Your task to perform on an android device: open app "Etsy: Buy & Sell Unique Items" Image 0: 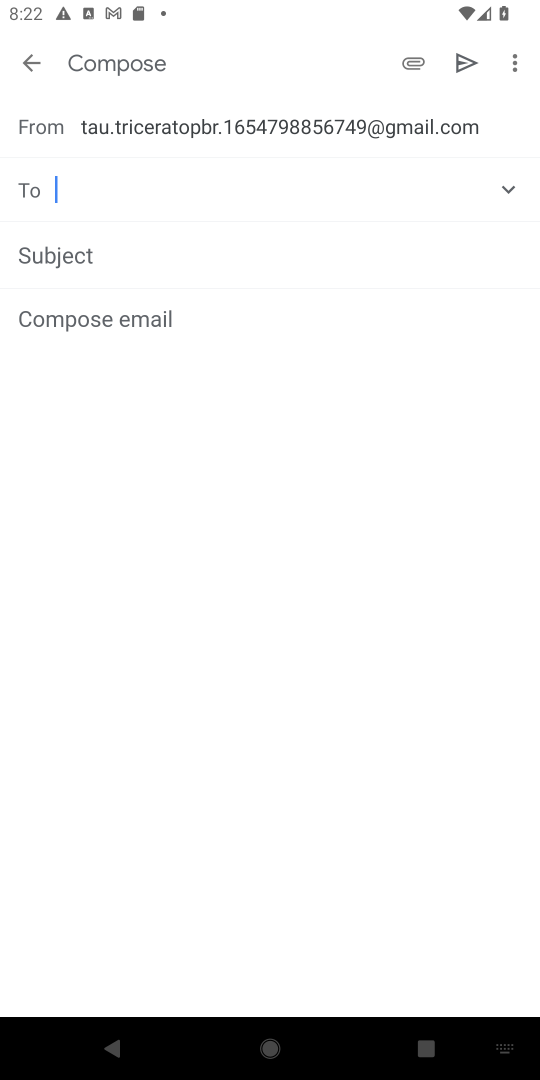
Step 0: press home button
Your task to perform on an android device: open app "Etsy: Buy & Sell Unique Items" Image 1: 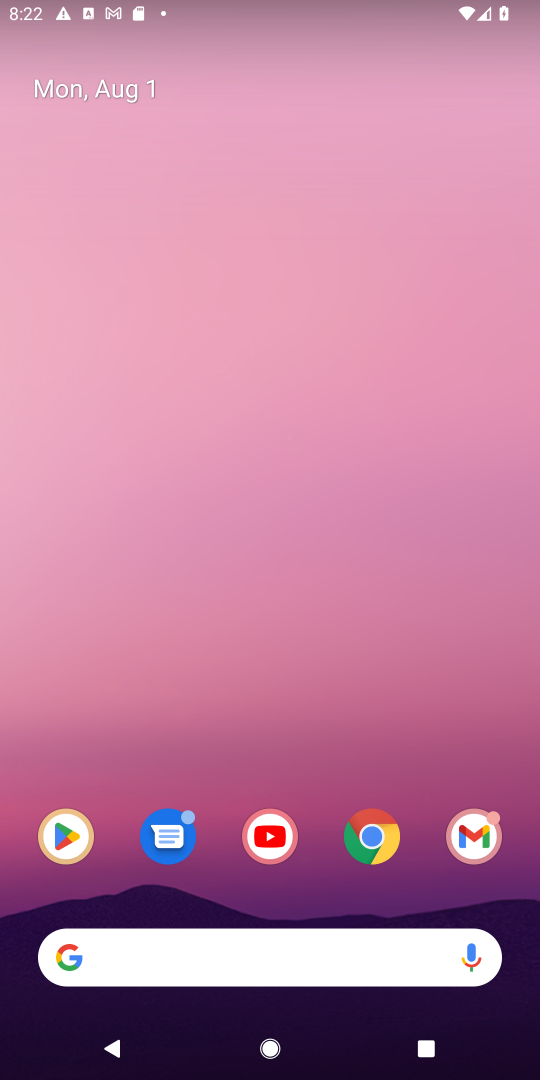
Step 1: click (58, 829)
Your task to perform on an android device: open app "Etsy: Buy & Sell Unique Items" Image 2: 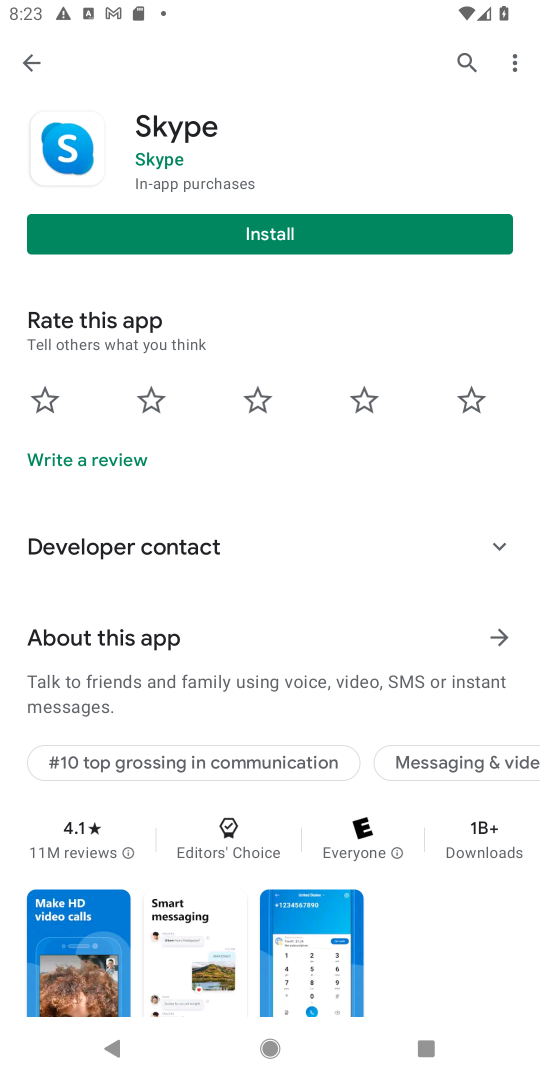
Step 2: click (461, 64)
Your task to perform on an android device: open app "Etsy: Buy & Sell Unique Items" Image 3: 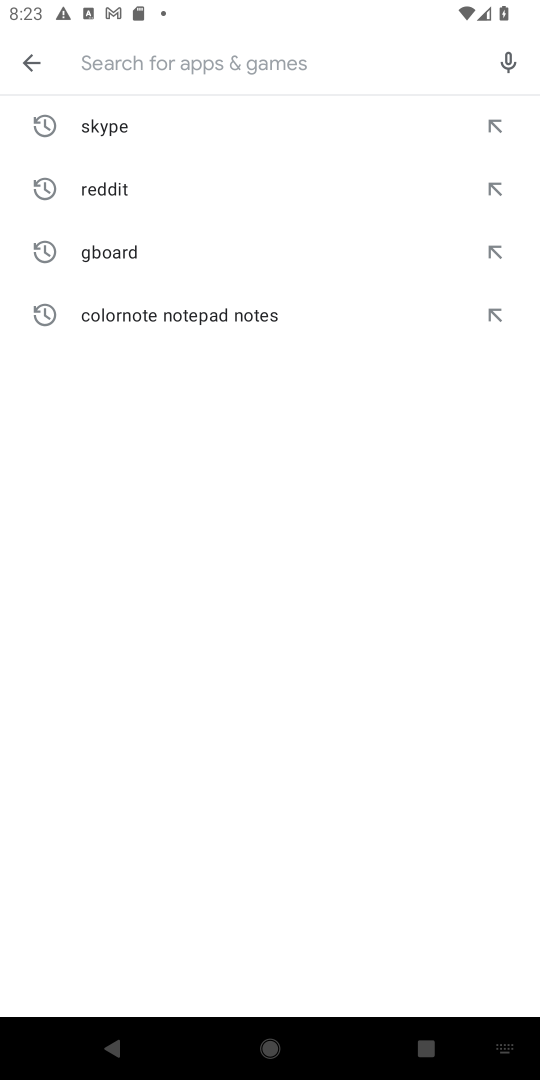
Step 3: type "Etsy: Buy & Sell Unique Items"
Your task to perform on an android device: open app "Etsy: Buy & Sell Unique Items" Image 4: 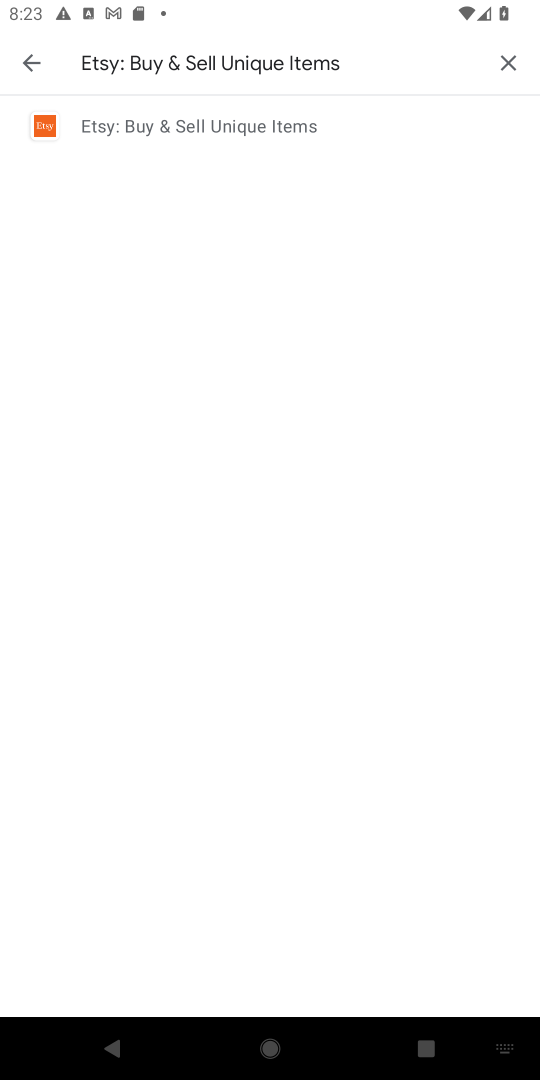
Step 4: click (222, 125)
Your task to perform on an android device: open app "Etsy: Buy & Sell Unique Items" Image 5: 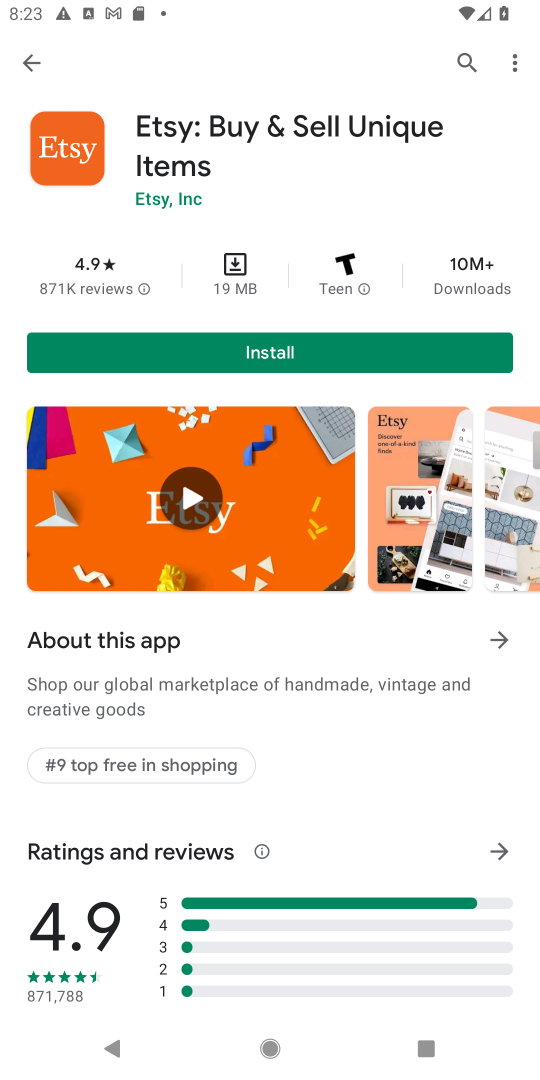
Step 5: task complete